Your task to perform on an android device: set the stopwatch Image 0: 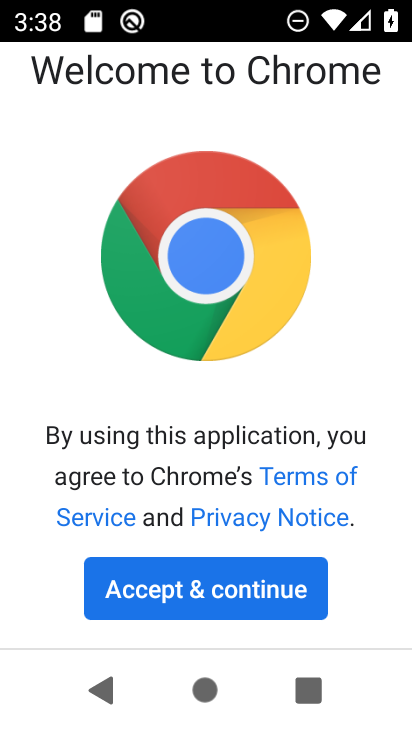
Step 0: press home button
Your task to perform on an android device: set the stopwatch Image 1: 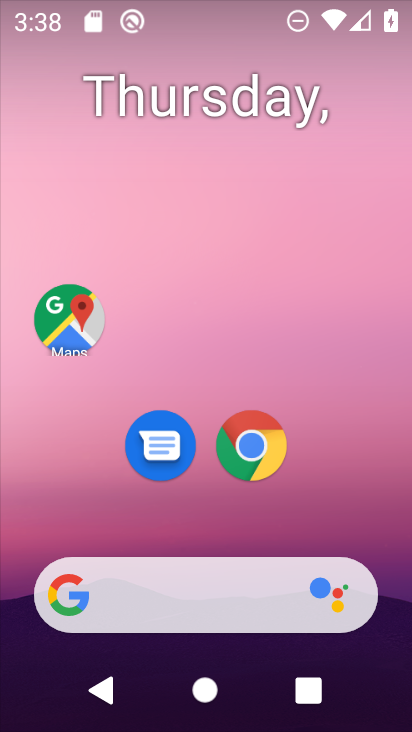
Step 1: drag from (350, 499) to (251, 90)
Your task to perform on an android device: set the stopwatch Image 2: 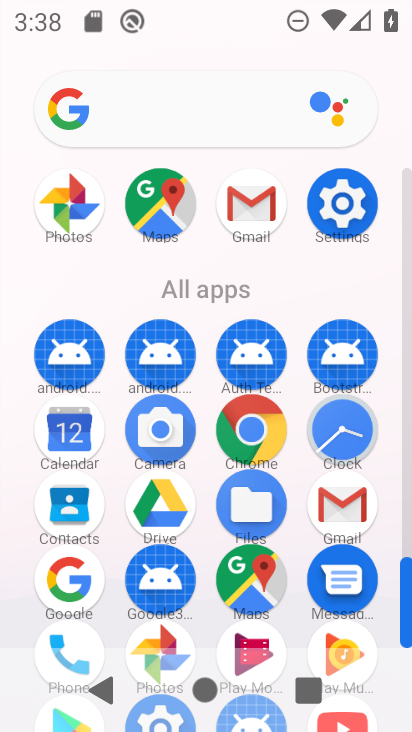
Step 2: click (340, 430)
Your task to perform on an android device: set the stopwatch Image 3: 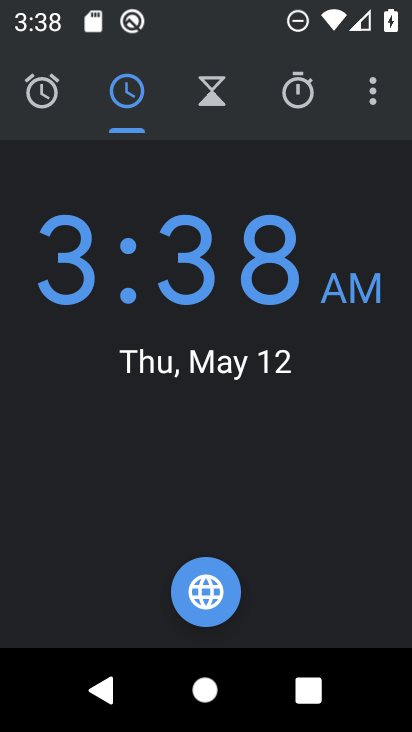
Step 3: click (295, 96)
Your task to perform on an android device: set the stopwatch Image 4: 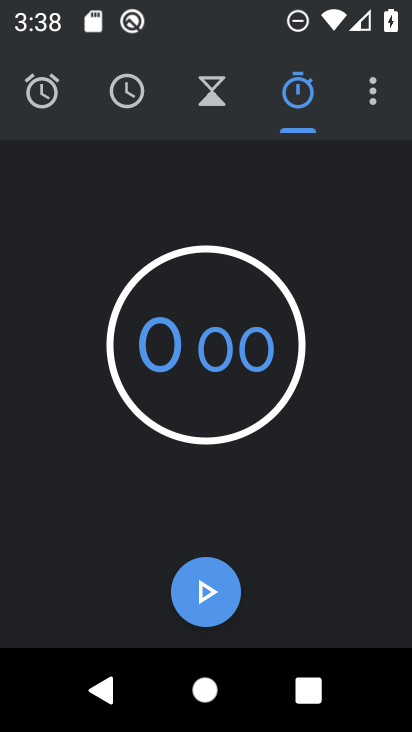
Step 4: click (215, 586)
Your task to perform on an android device: set the stopwatch Image 5: 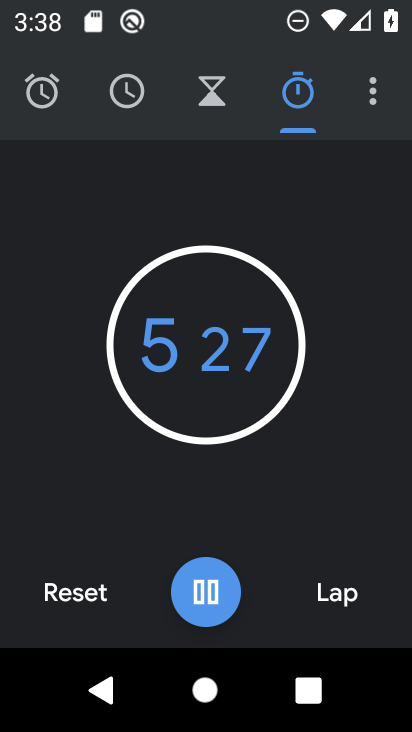
Step 5: click (203, 587)
Your task to perform on an android device: set the stopwatch Image 6: 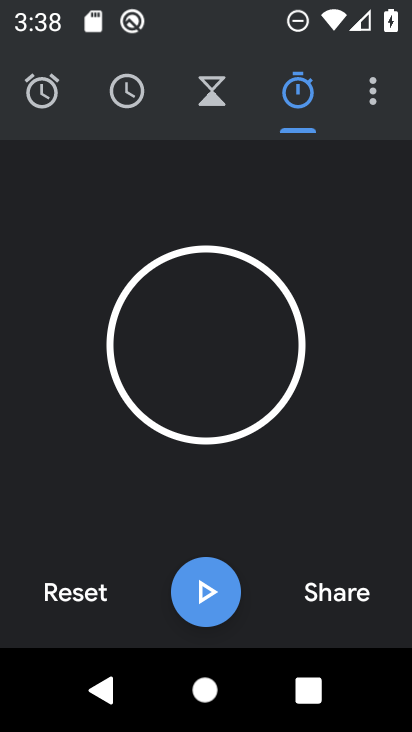
Step 6: task complete